Your task to perform on an android device: find snoozed emails in the gmail app Image 0: 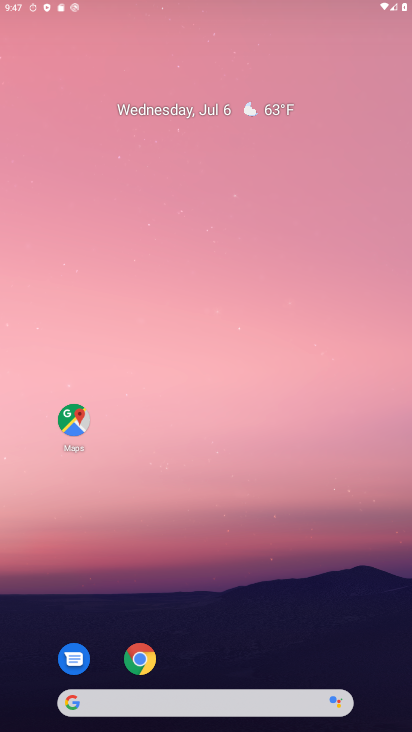
Step 0: drag from (219, 672) to (282, 144)
Your task to perform on an android device: find snoozed emails in the gmail app Image 1: 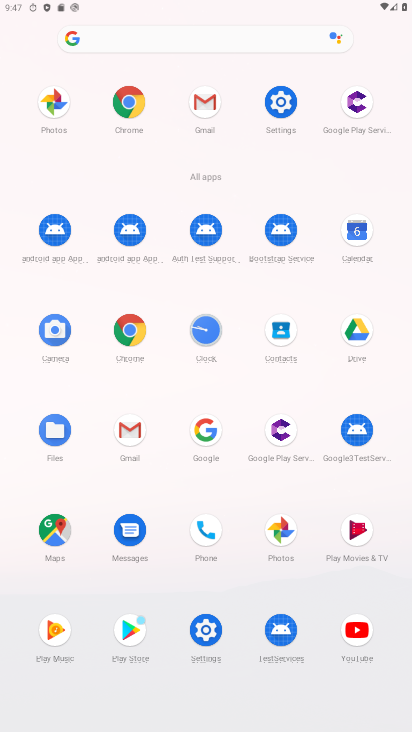
Step 1: click (129, 441)
Your task to perform on an android device: find snoozed emails in the gmail app Image 2: 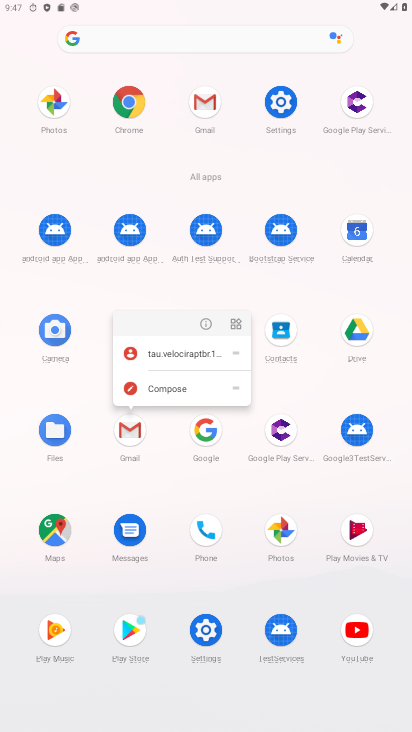
Step 2: click (198, 311)
Your task to perform on an android device: find snoozed emails in the gmail app Image 3: 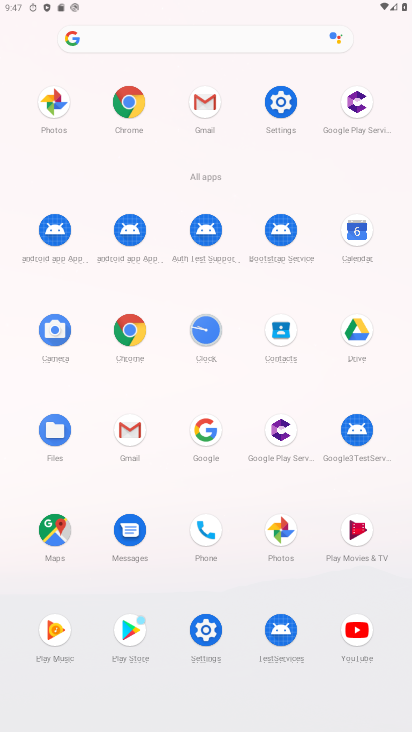
Step 3: click (125, 425)
Your task to perform on an android device: find snoozed emails in the gmail app Image 4: 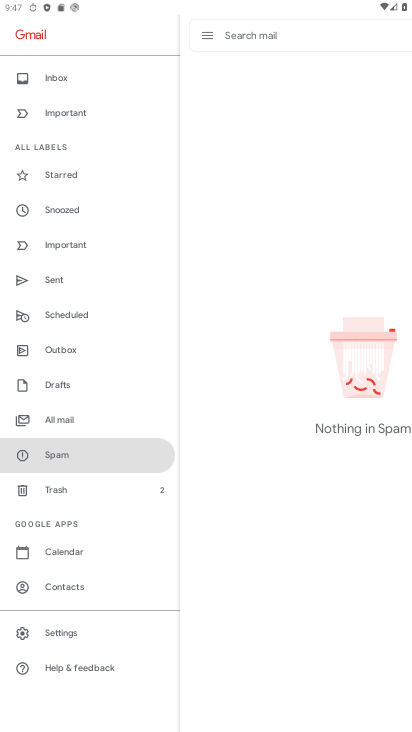
Step 4: click (46, 212)
Your task to perform on an android device: find snoozed emails in the gmail app Image 5: 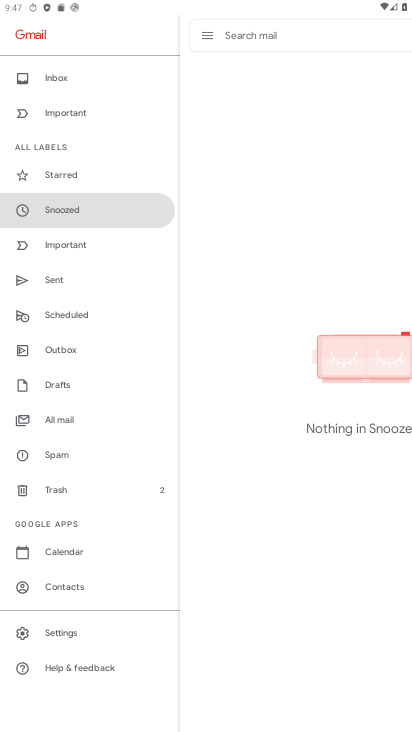
Step 5: task complete